Your task to perform on an android device: turn notification dots on Image 0: 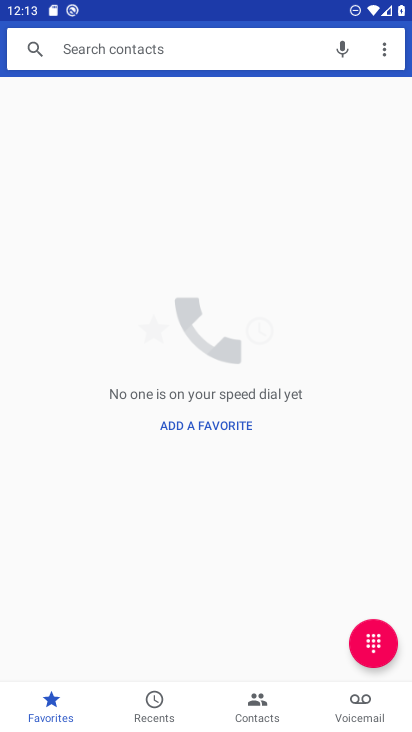
Step 0: press home button
Your task to perform on an android device: turn notification dots on Image 1: 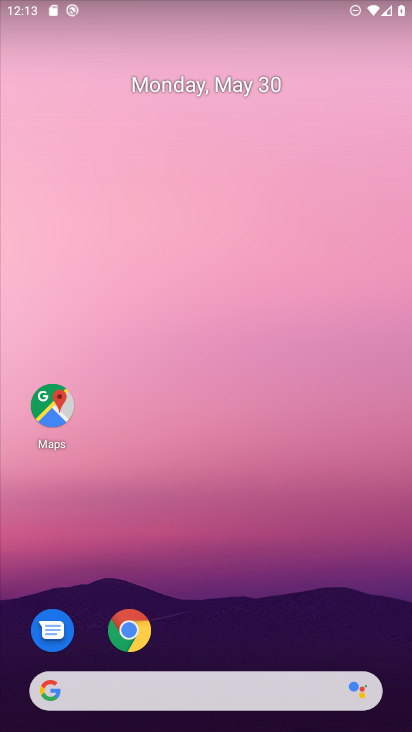
Step 1: drag from (164, 694) to (285, 101)
Your task to perform on an android device: turn notification dots on Image 2: 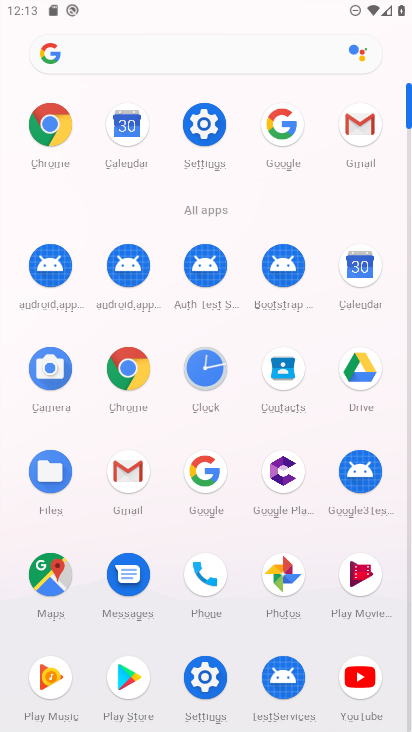
Step 2: click (203, 134)
Your task to perform on an android device: turn notification dots on Image 3: 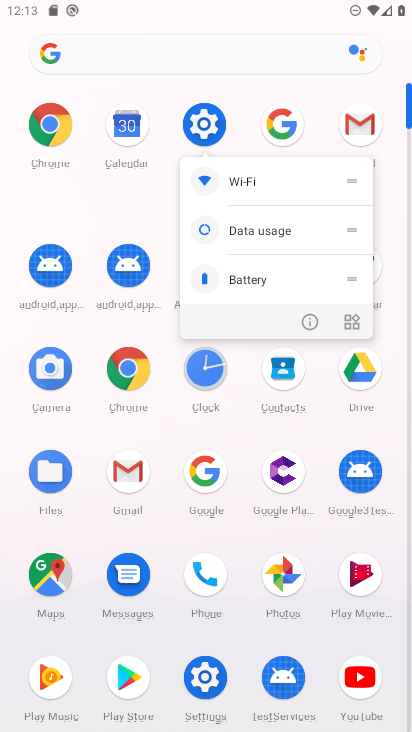
Step 3: click (203, 121)
Your task to perform on an android device: turn notification dots on Image 4: 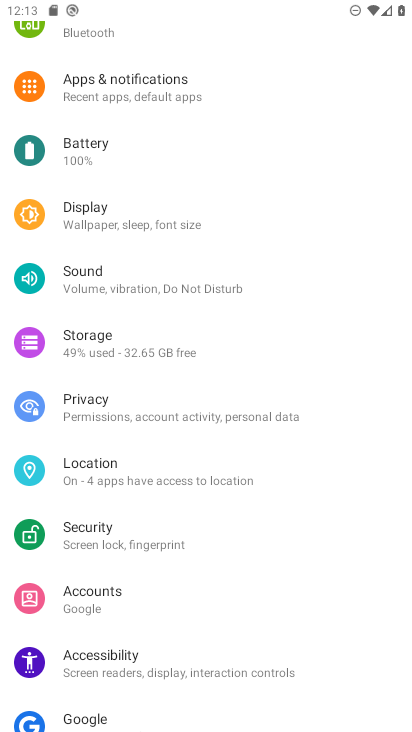
Step 4: click (136, 73)
Your task to perform on an android device: turn notification dots on Image 5: 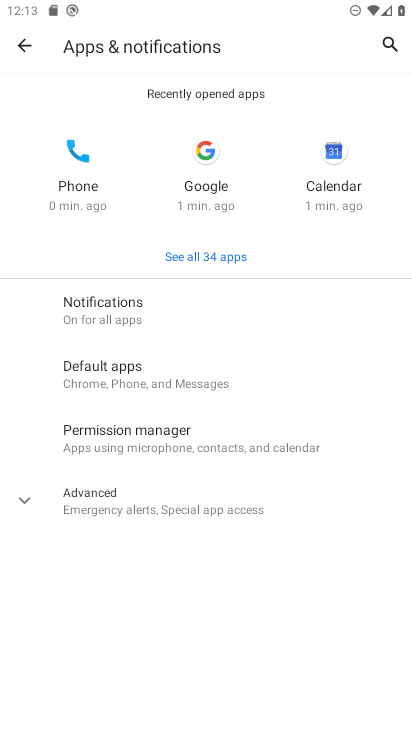
Step 5: click (125, 304)
Your task to perform on an android device: turn notification dots on Image 6: 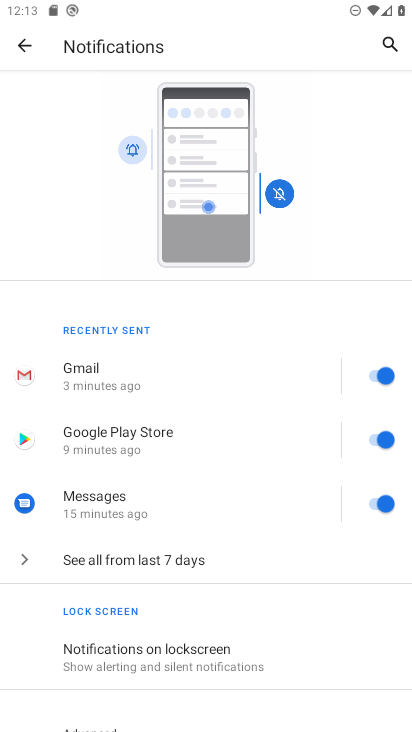
Step 6: drag from (244, 561) to (342, 158)
Your task to perform on an android device: turn notification dots on Image 7: 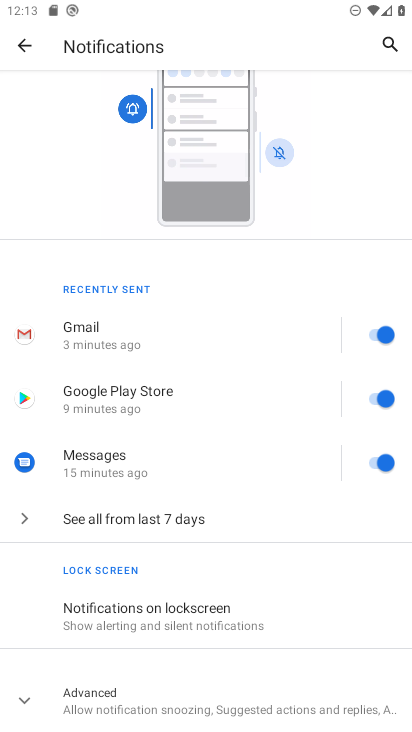
Step 7: click (124, 697)
Your task to perform on an android device: turn notification dots on Image 8: 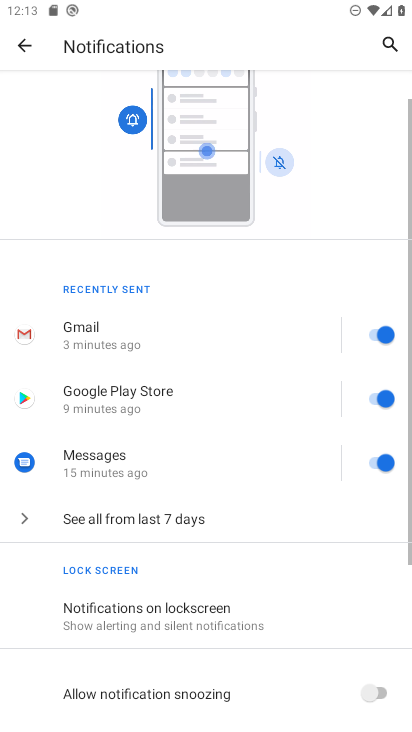
Step 8: task complete